Your task to perform on an android device: turn off sleep mode Image 0: 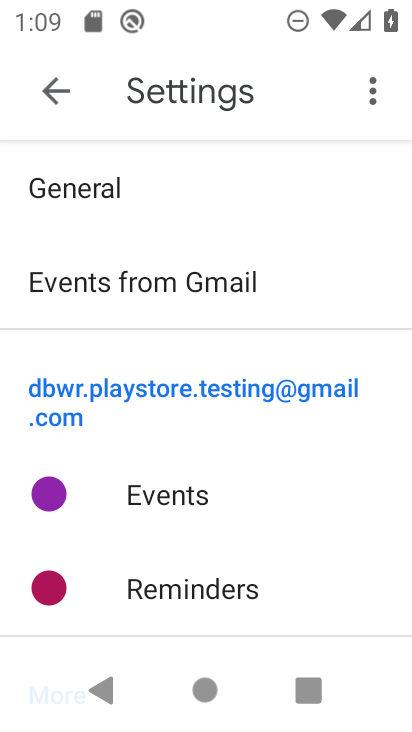
Step 0: press home button
Your task to perform on an android device: turn off sleep mode Image 1: 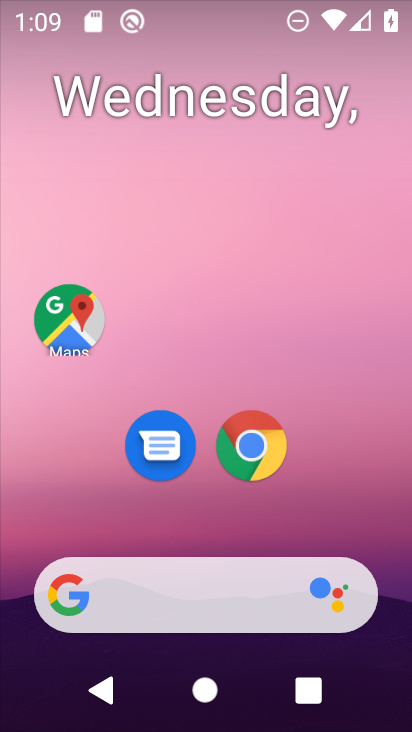
Step 1: drag from (390, 627) to (202, 14)
Your task to perform on an android device: turn off sleep mode Image 2: 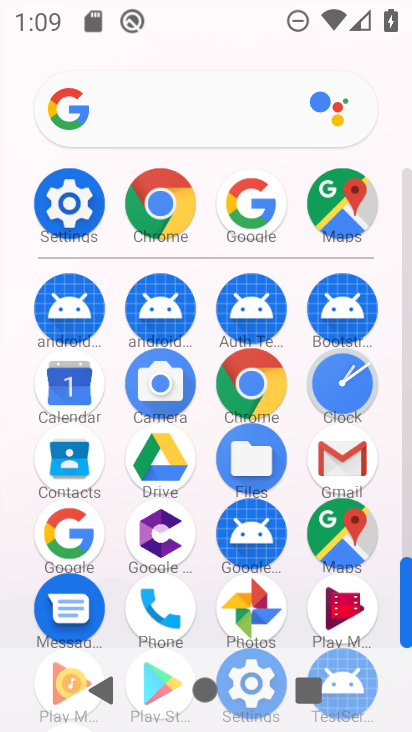
Step 2: click (44, 204)
Your task to perform on an android device: turn off sleep mode Image 3: 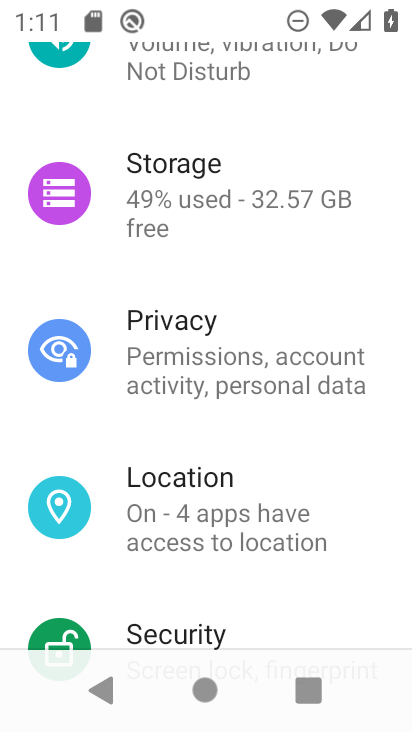
Step 3: task complete